Your task to perform on an android device: stop showing notifications on the lock screen Image 0: 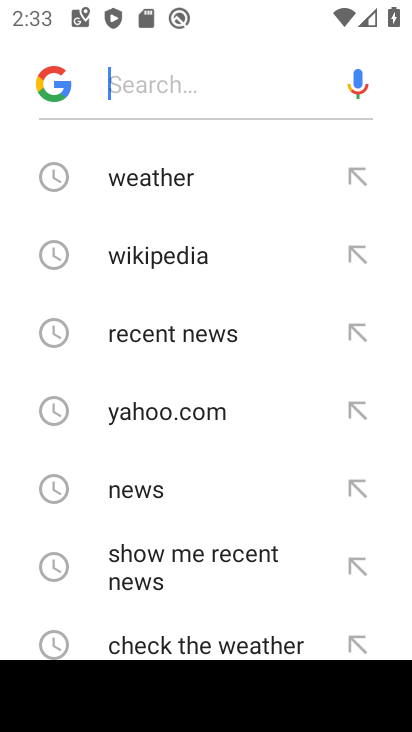
Step 0: press home button
Your task to perform on an android device: stop showing notifications on the lock screen Image 1: 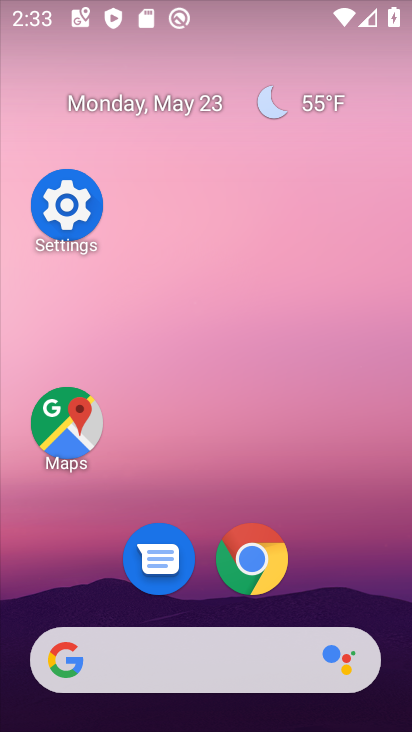
Step 1: click (49, 213)
Your task to perform on an android device: stop showing notifications on the lock screen Image 2: 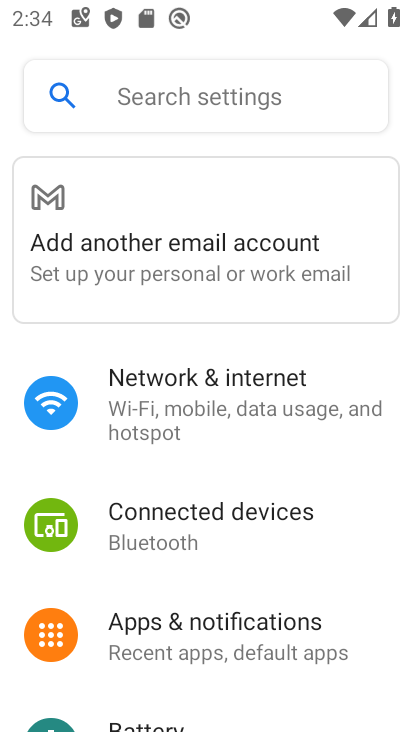
Step 2: click (239, 634)
Your task to perform on an android device: stop showing notifications on the lock screen Image 3: 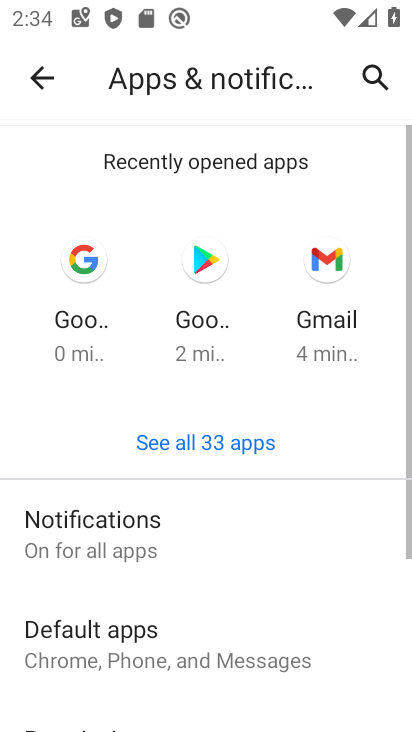
Step 3: click (164, 499)
Your task to perform on an android device: stop showing notifications on the lock screen Image 4: 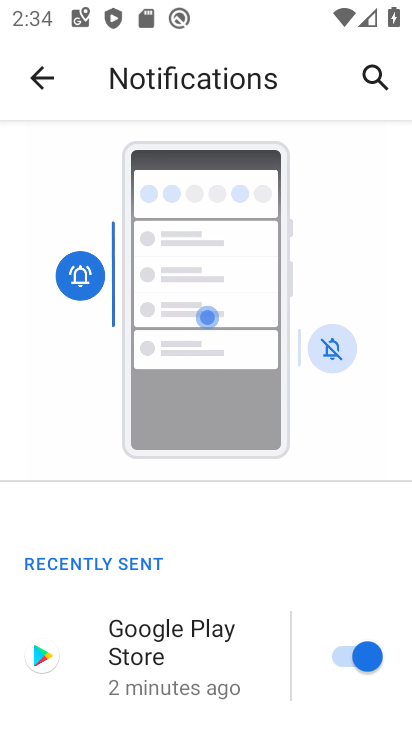
Step 4: drag from (221, 590) to (205, 160)
Your task to perform on an android device: stop showing notifications on the lock screen Image 5: 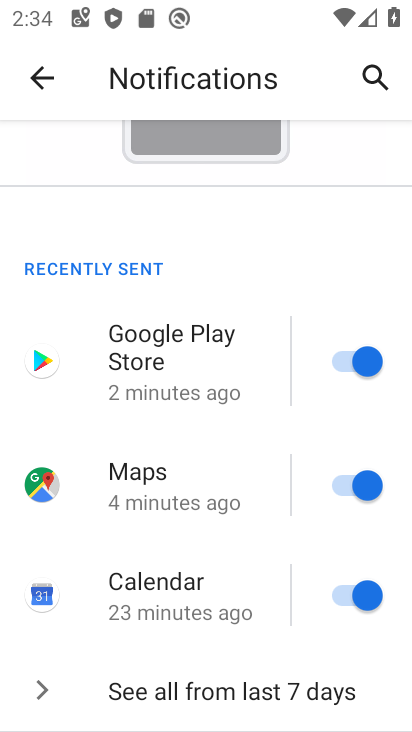
Step 5: drag from (147, 538) to (131, 196)
Your task to perform on an android device: stop showing notifications on the lock screen Image 6: 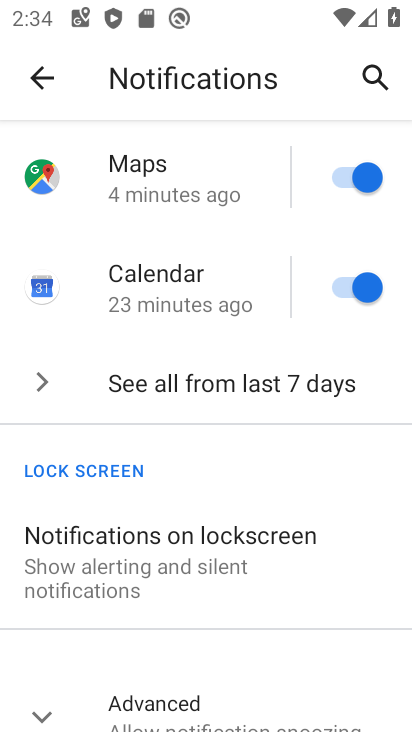
Step 6: click (140, 534)
Your task to perform on an android device: stop showing notifications on the lock screen Image 7: 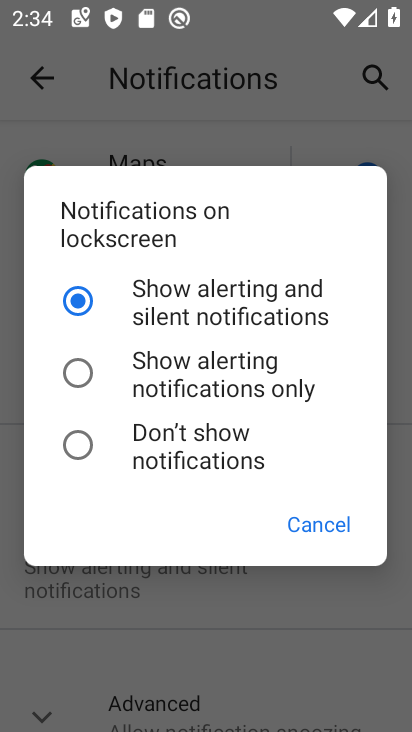
Step 7: click (119, 458)
Your task to perform on an android device: stop showing notifications on the lock screen Image 8: 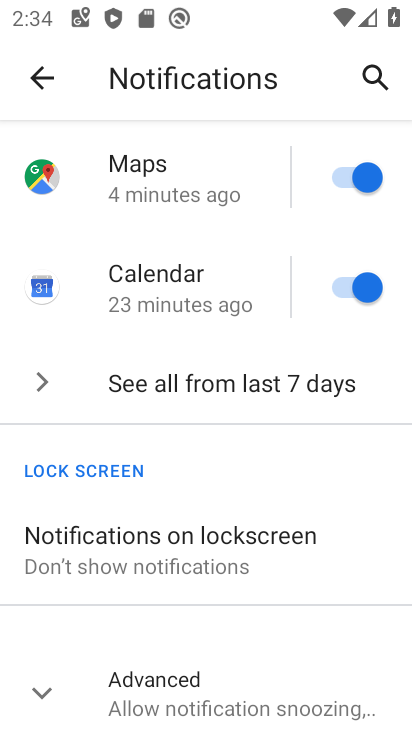
Step 8: task complete